Your task to perform on an android device: turn on location history Image 0: 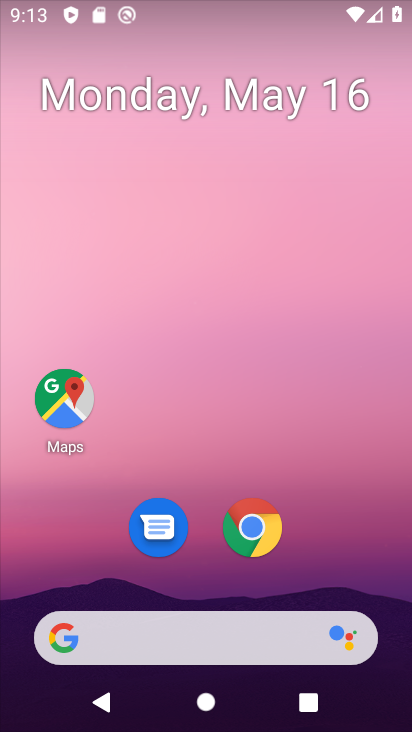
Step 0: click (69, 390)
Your task to perform on an android device: turn on location history Image 1: 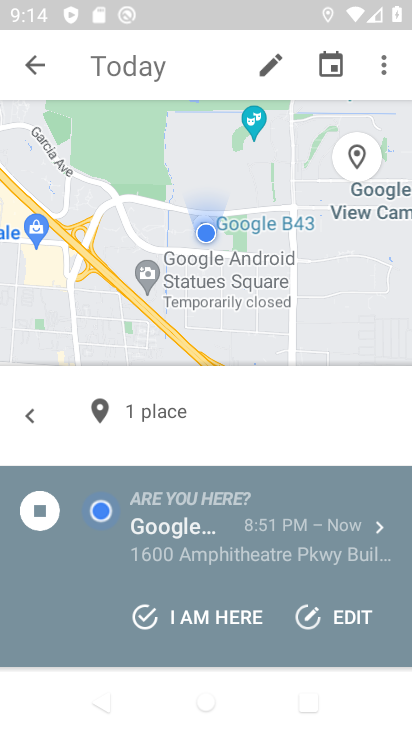
Step 1: click (386, 71)
Your task to perform on an android device: turn on location history Image 2: 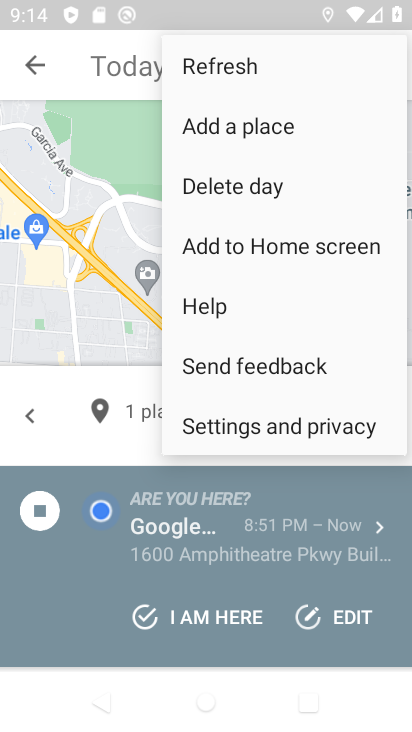
Step 2: click (231, 433)
Your task to perform on an android device: turn on location history Image 3: 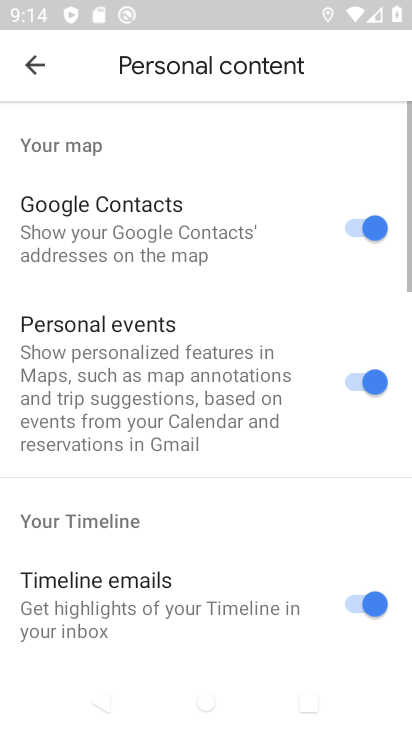
Step 3: drag from (140, 526) to (147, 117)
Your task to perform on an android device: turn on location history Image 4: 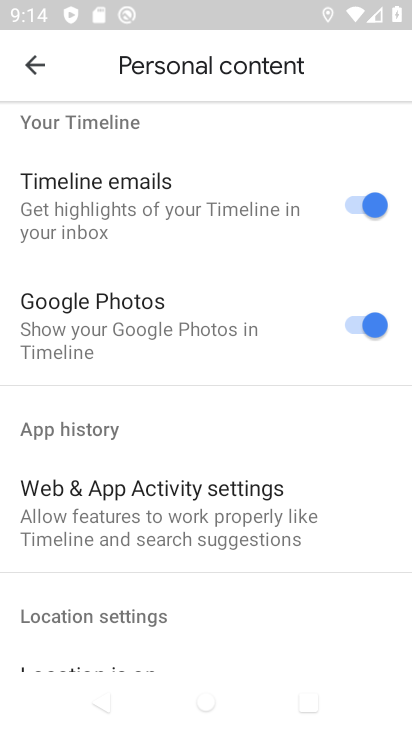
Step 4: drag from (137, 528) to (128, 83)
Your task to perform on an android device: turn on location history Image 5: 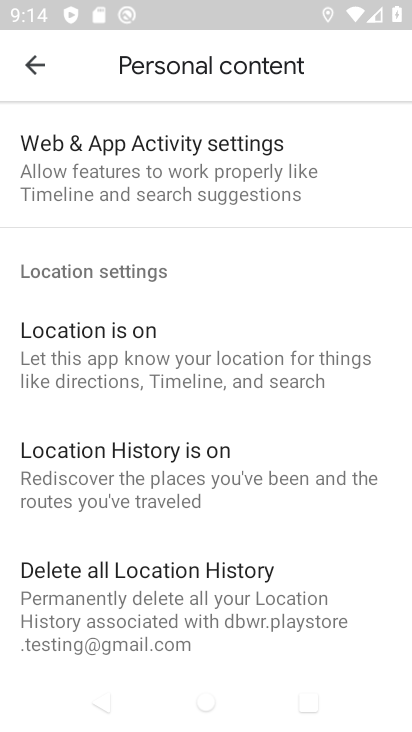
Step 5: click (161, 466)
Your task to perform on an android device: turn on location history Image 6: 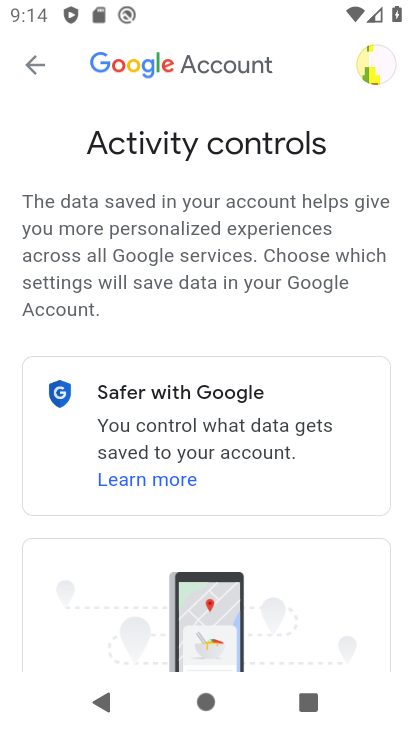
Step 6: task complete